Your task to perform on an android device: Open network settings Image 0: 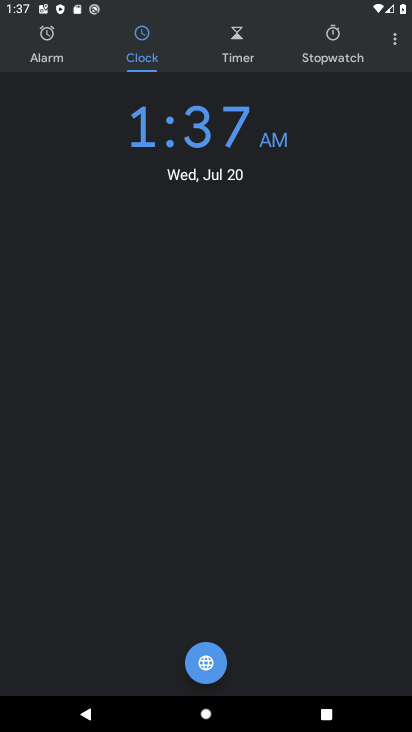
Step 0: task complete